Your task to perform on an android device: Clear the cart on target.com. Add "beats solo 3" to the cart on target.com Image 0: 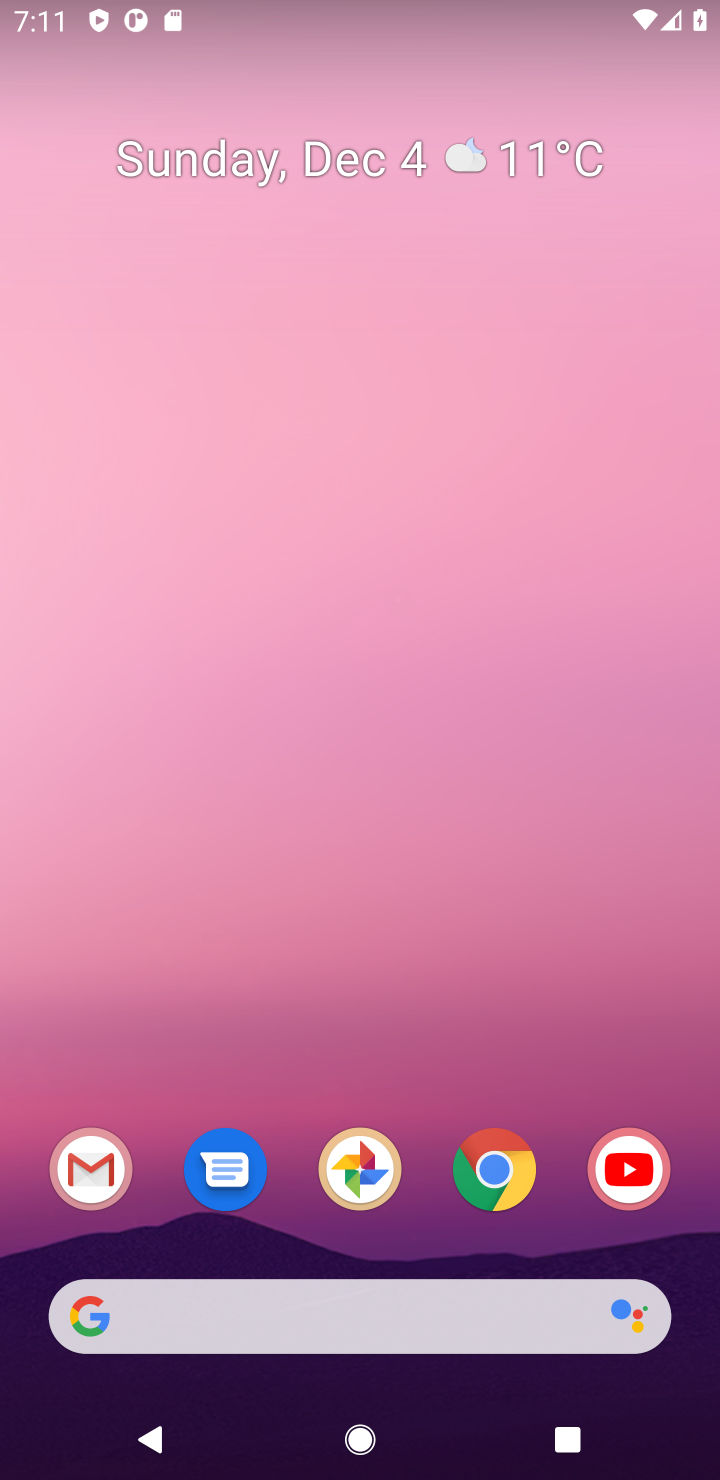
Step 0: drag from (451, 1381) to (8, 876)
Your task to perform on an android device: Clear the cart on target.com. Add "beats solo 3" to the cart on target.com Image 1: 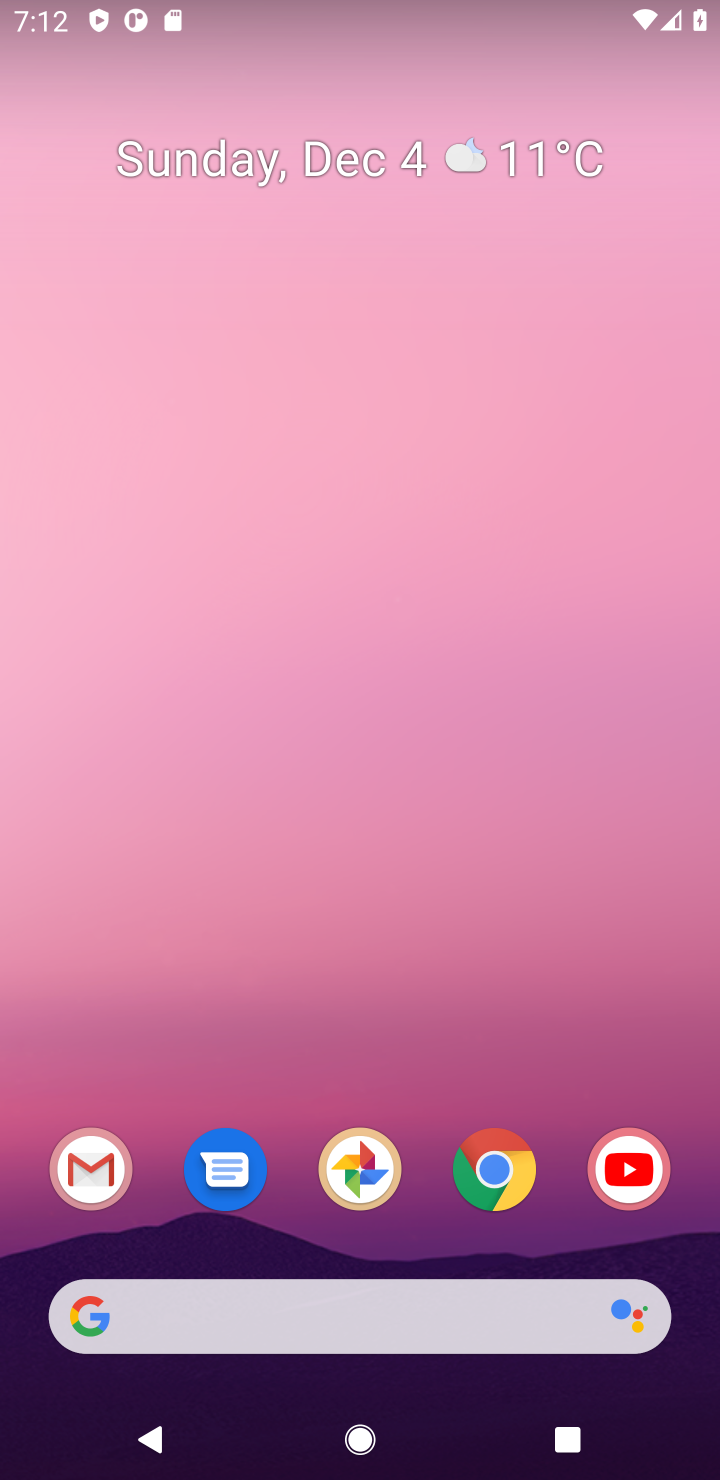
Step 1: drag from (463, 1390) to (478, 2)
Your task to perform on an android device: Clear the cart on target.com. Add "beats solo 3" to the cart on target.com Image 2: 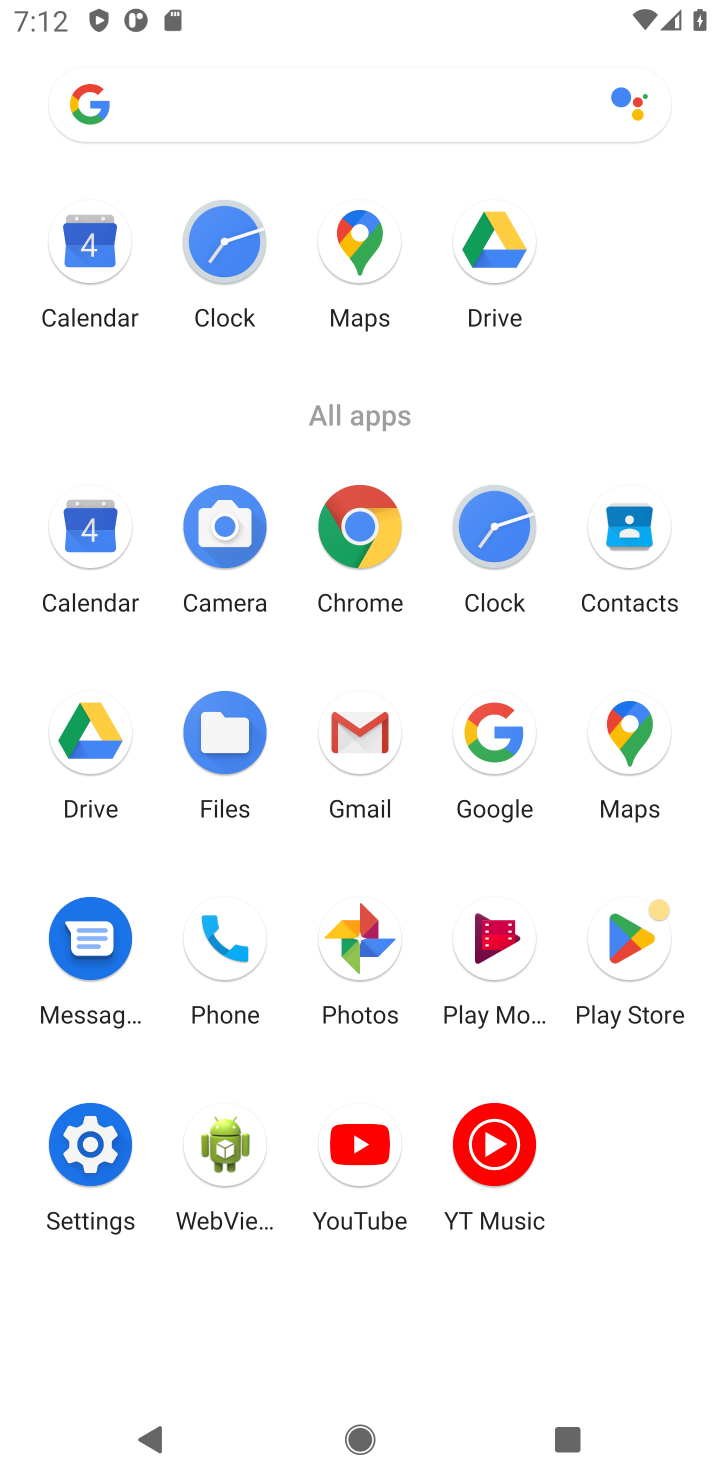
Step 2: click (354, 525)
Your task to perform on an android device: Clear the cart on target.com. Add "beats solo 3" to the cart on target.com Image 3: 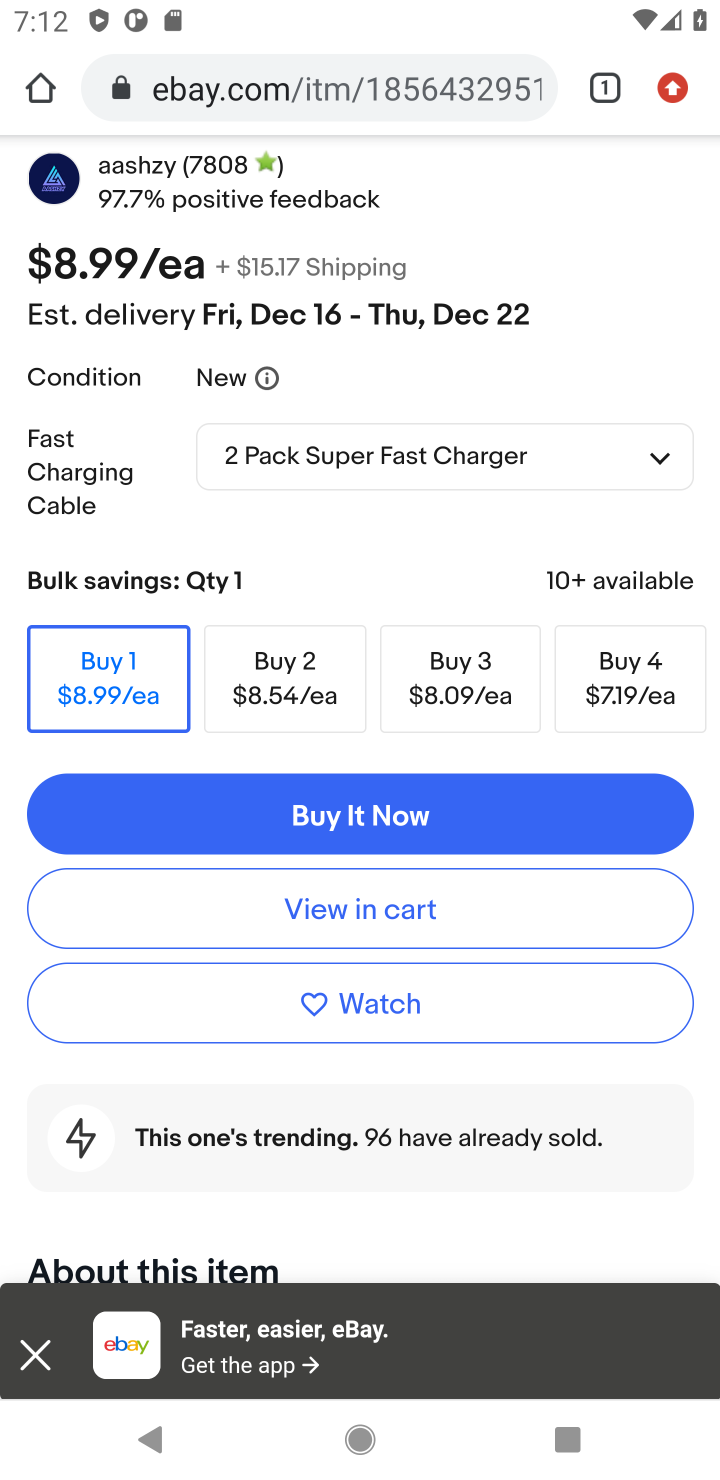
Step 3: click (324, 83)
Your task to perform on an android device: Clear the cart on target.com. Add "beats solo 3" to the cart on target.com Image 4: 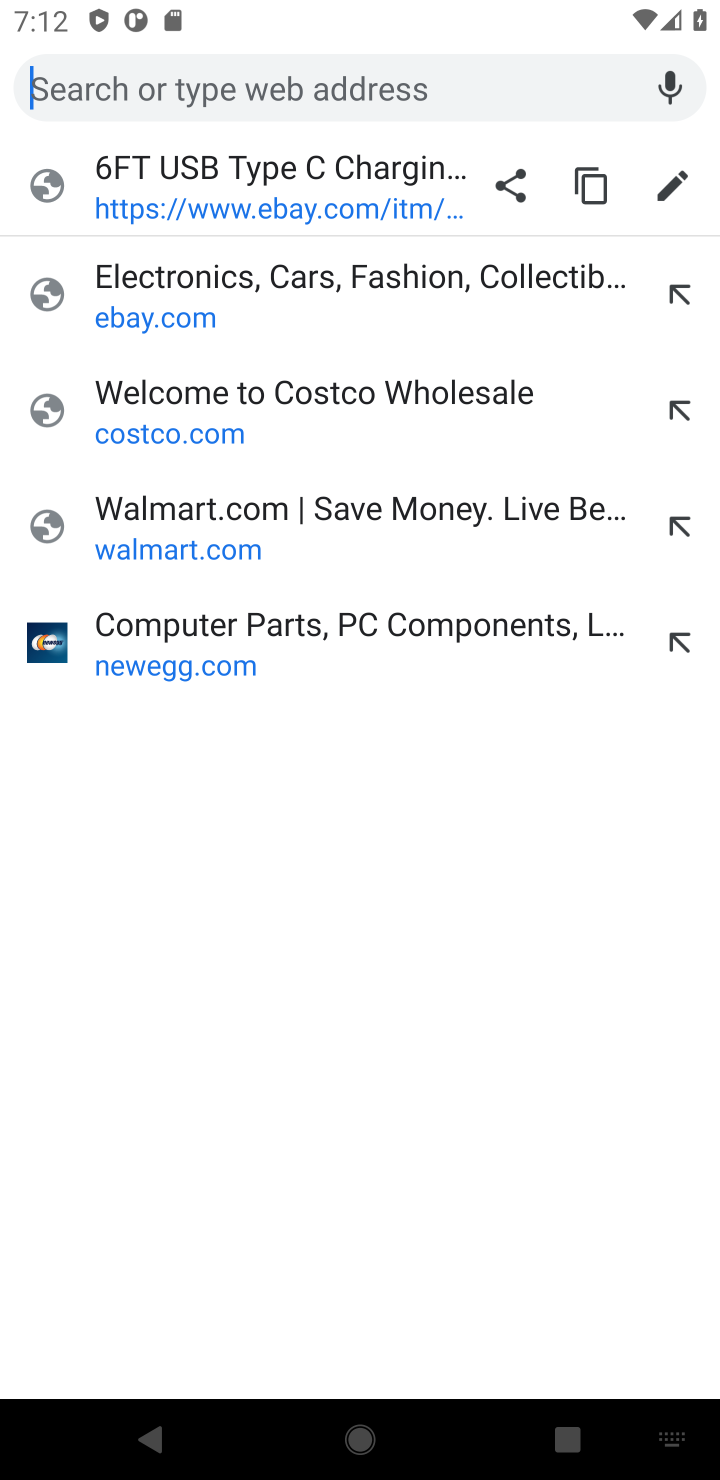
Step 4: type " target.com"
Your task to perform on an android device: Clear the cart on target.com. Add "beats solo 3" to the cart on target.com Image 5: 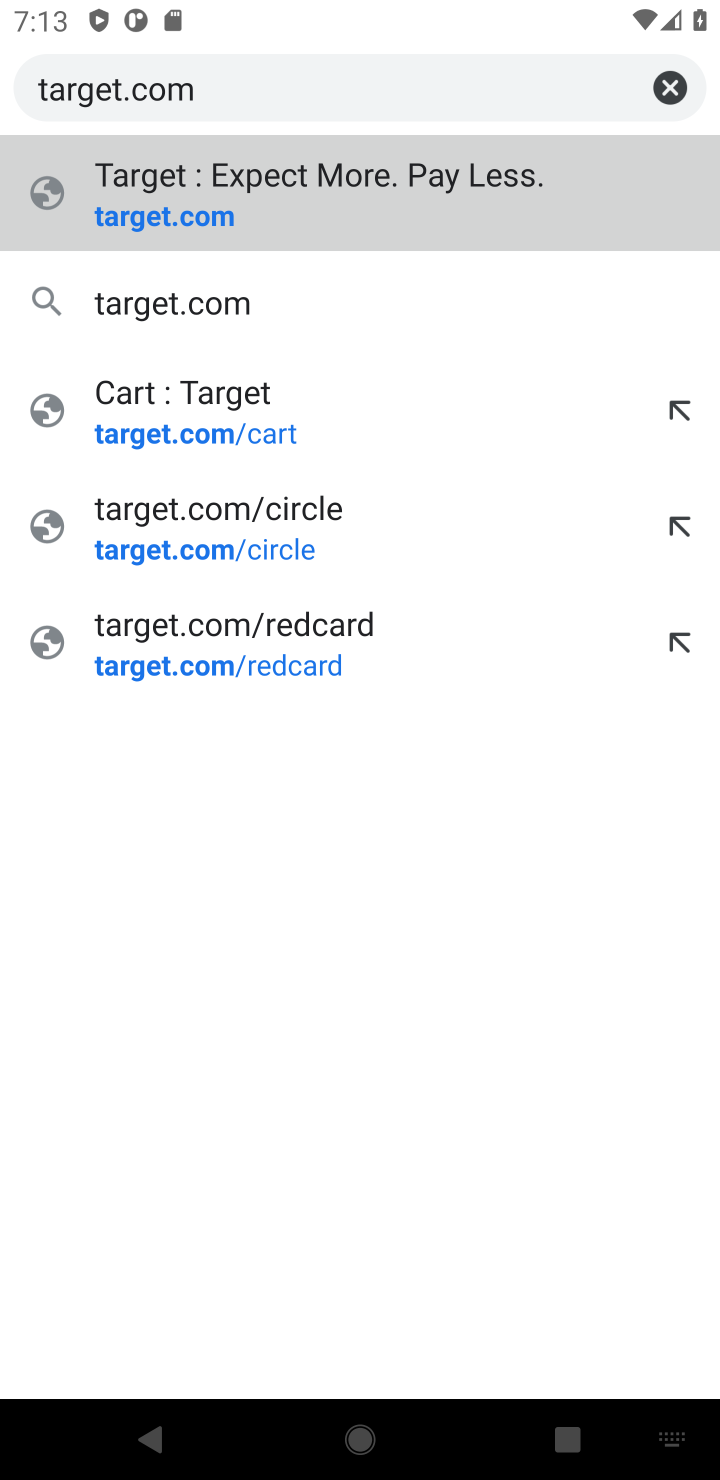
Step 5: type ""
Your task to perform on an android device: Clear the cart on target.com. Add "beats solo 3" to the cart on target.com Image 6: 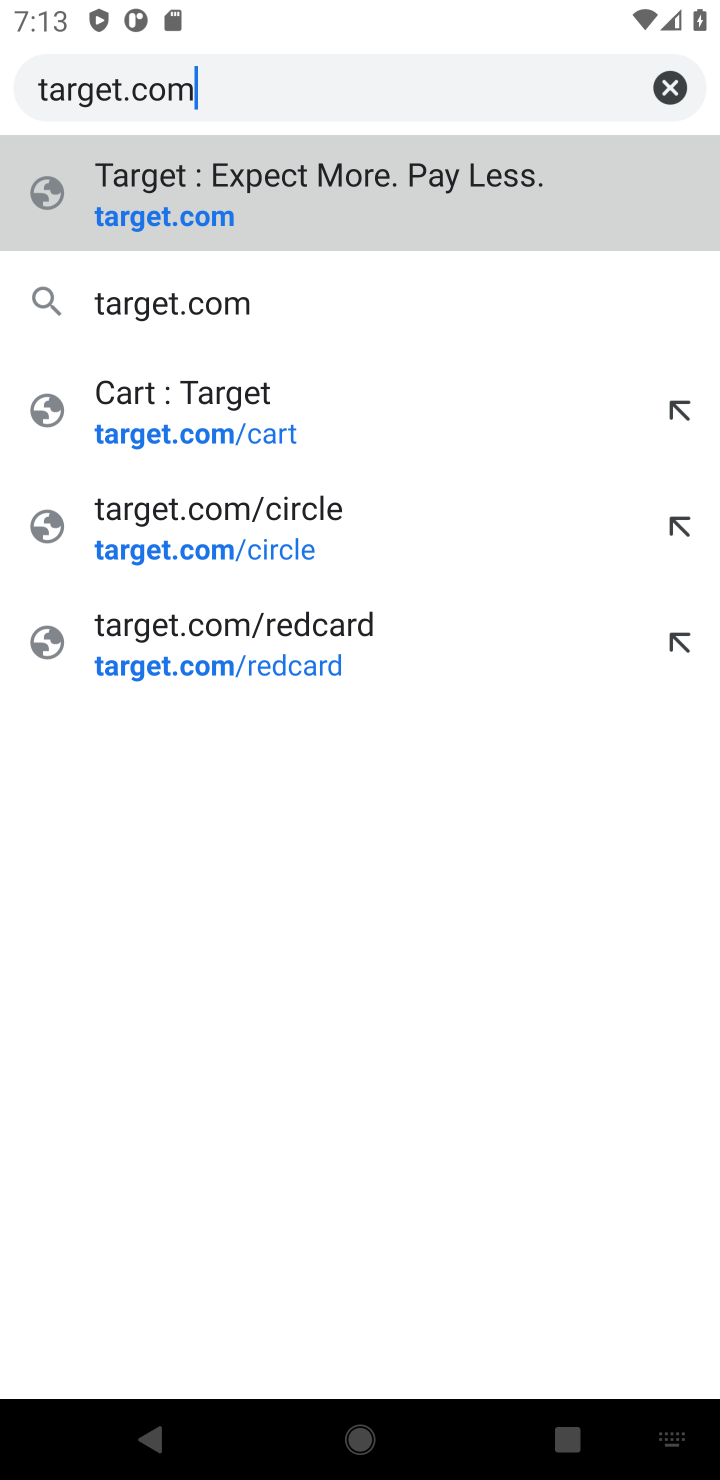
Step 6: click (152, 217)
Your task to perform on an android device: Clear the cart on target.com. Add "beats solo 3" to the cart on target.com Image 7: 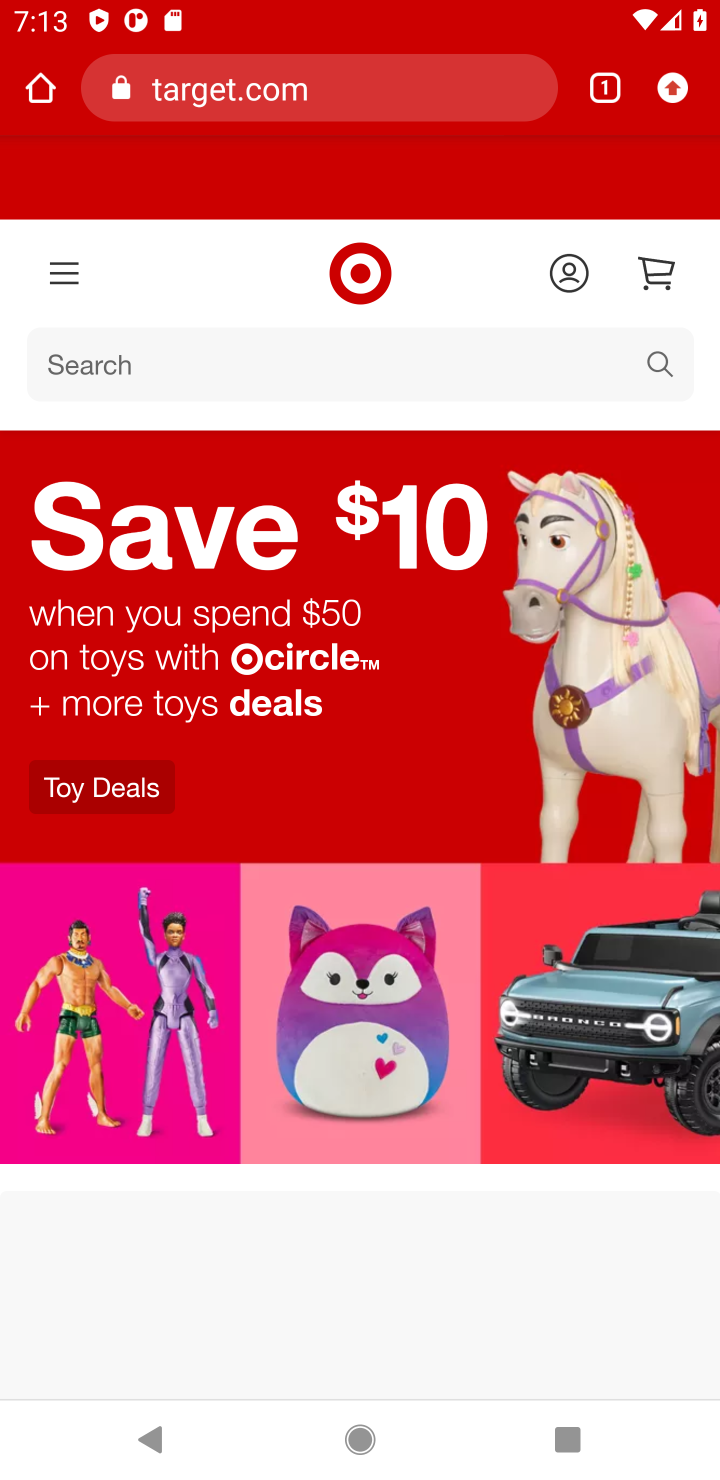
Step 7: click (646, 272)
Your task to perform on an android device: Clear the cart on target.com. Add "beats solo 3" to the cart on target.com Image 8: 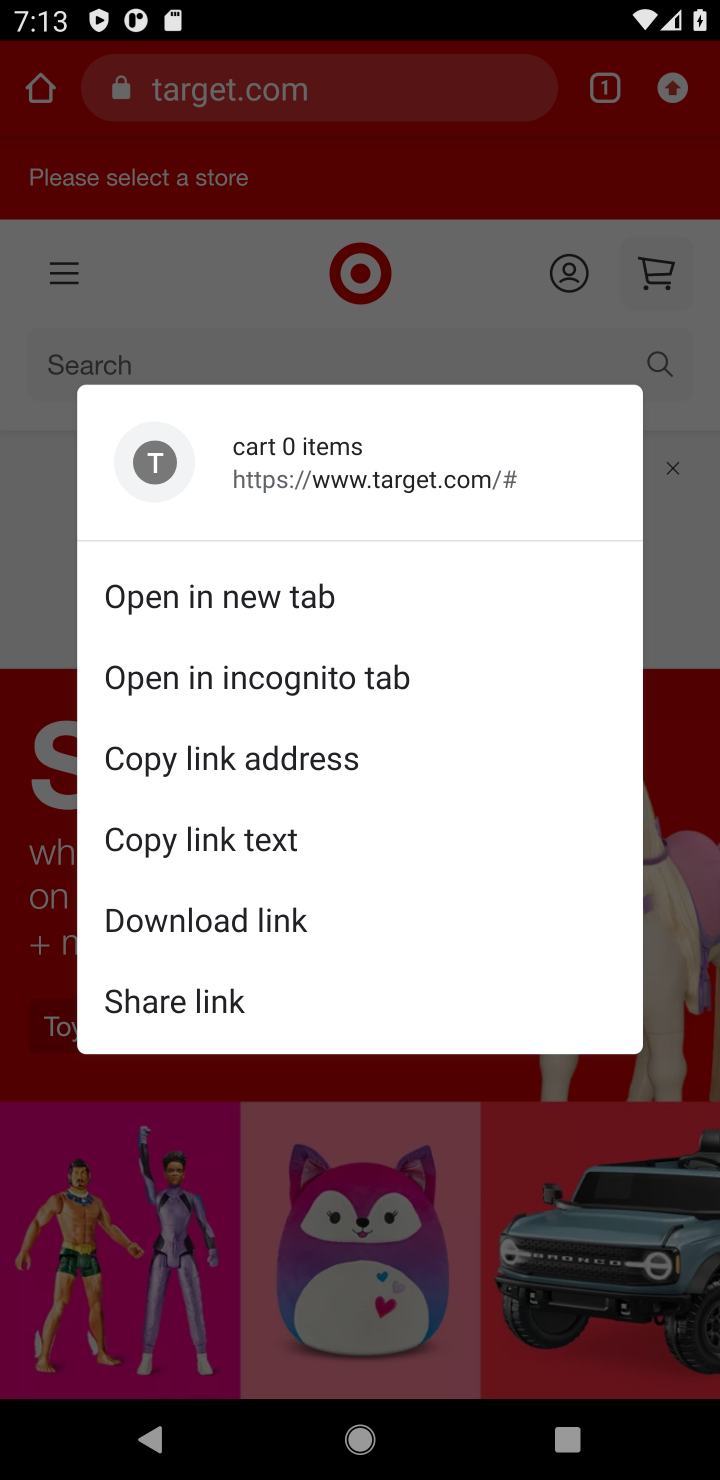
Step 8: click (462, 293)
Your task to perform on an android device: Clear the cart on target.com. Add "beats solo 3" to the cart on target.com Image 9: 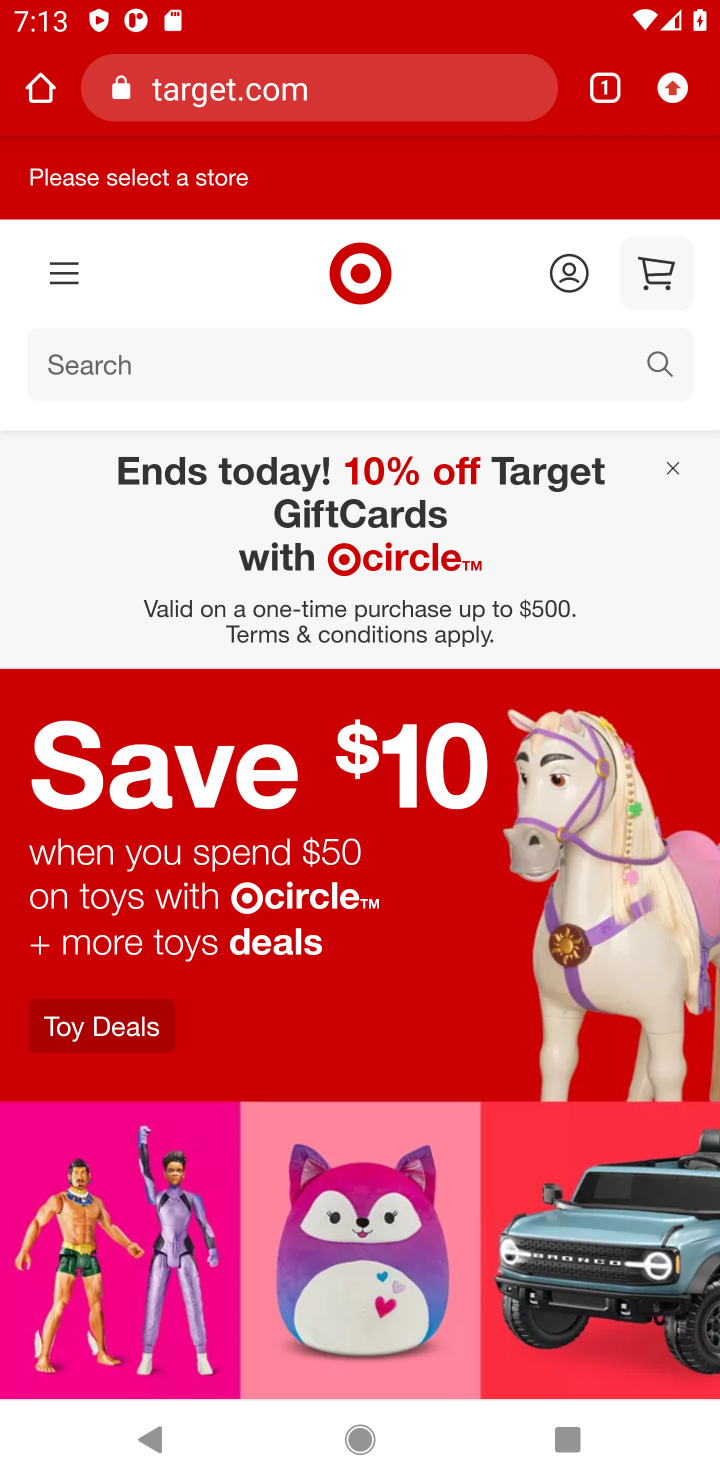
Step 9: click (658, 366)
Your task to perform on an android device: Clear the cart on target.com. Add "beats solo 3" to the cart on target.com Image 10: 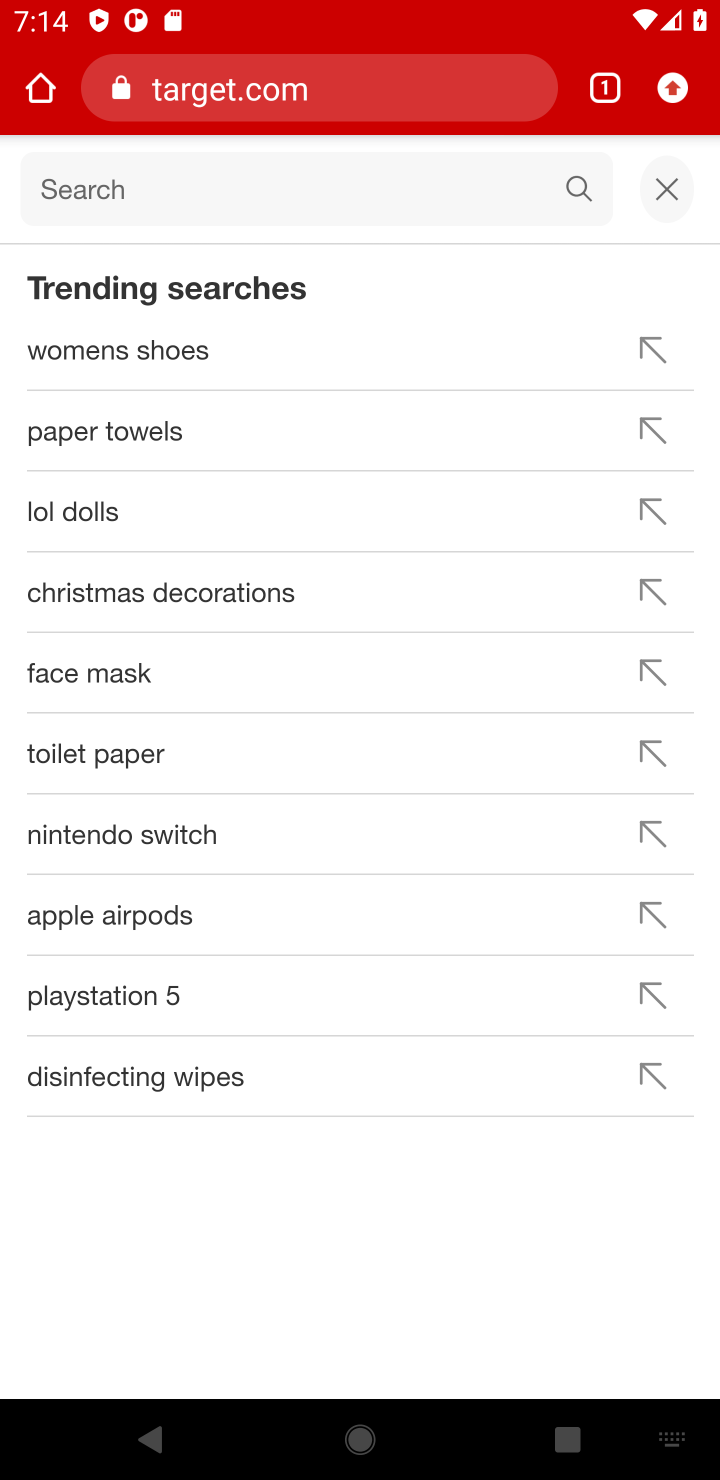
Step 10: type "beats solo 3"
Your task to perform on an android device: Clear the cart on target.com. Add "beats solo 3" to the cart on target.com Image 11: 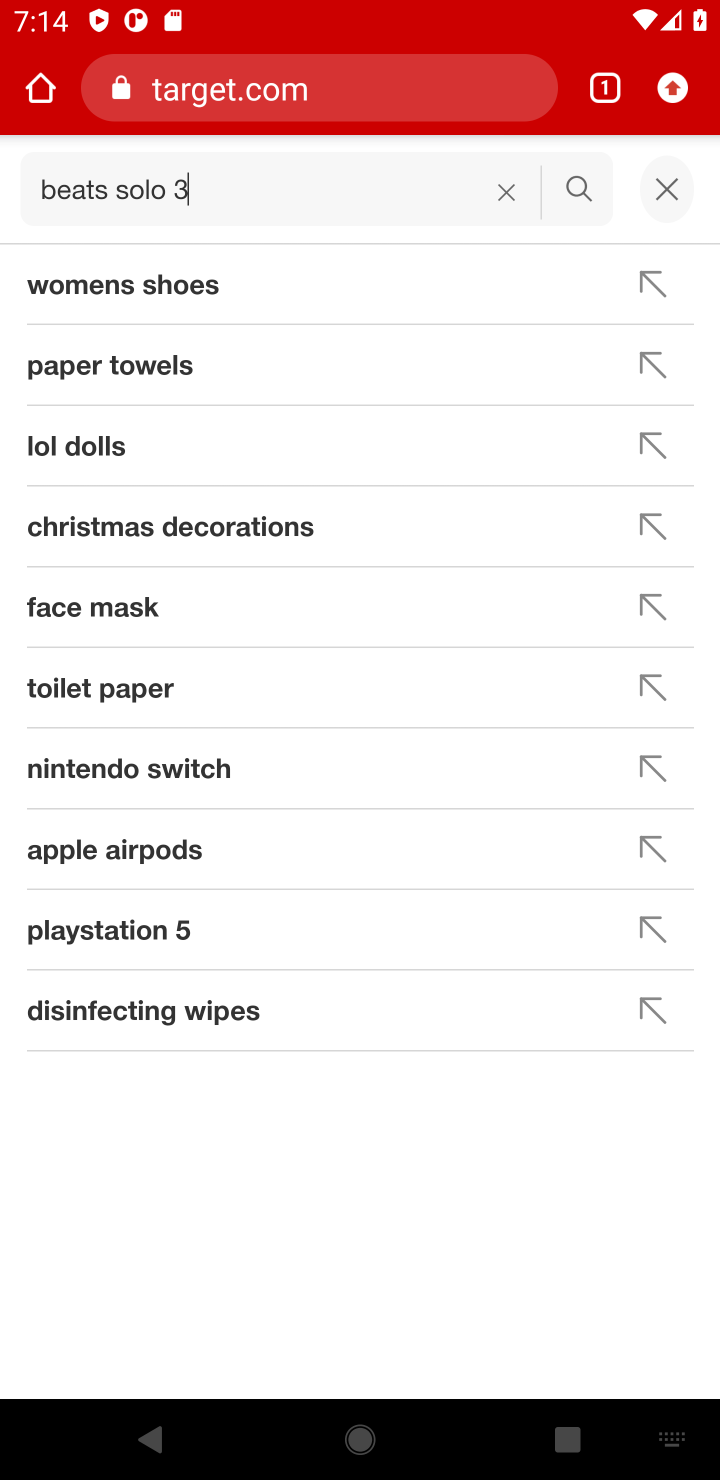
Step 11: type ""
Your task to perform on an android device: Clear the cart on target.com. Add "beats solo 3" to the cart on target.com Image 12: 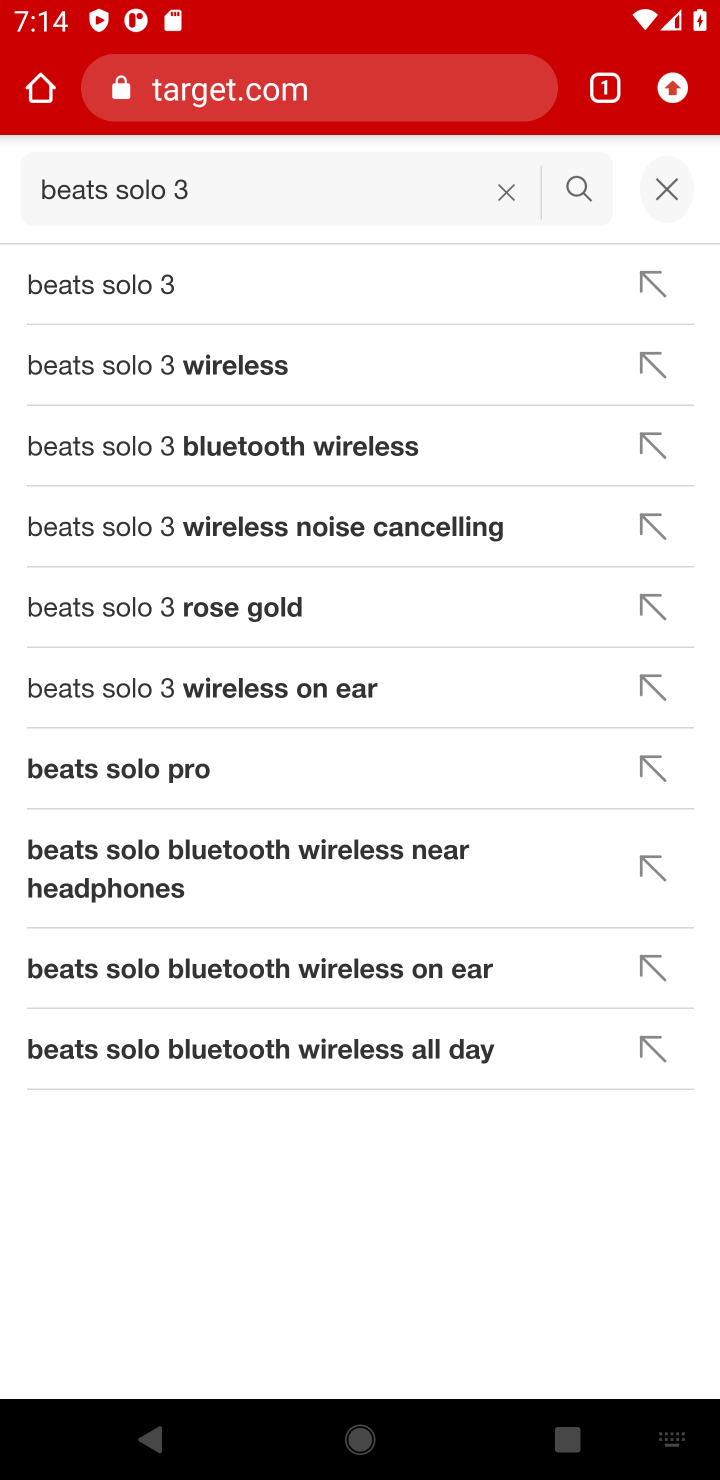
Step 12: click (106, 281)
Your task to perform on an android device: Clear the cart on target.com. Add "beats solo 3" to the cart on target.com Image 13: 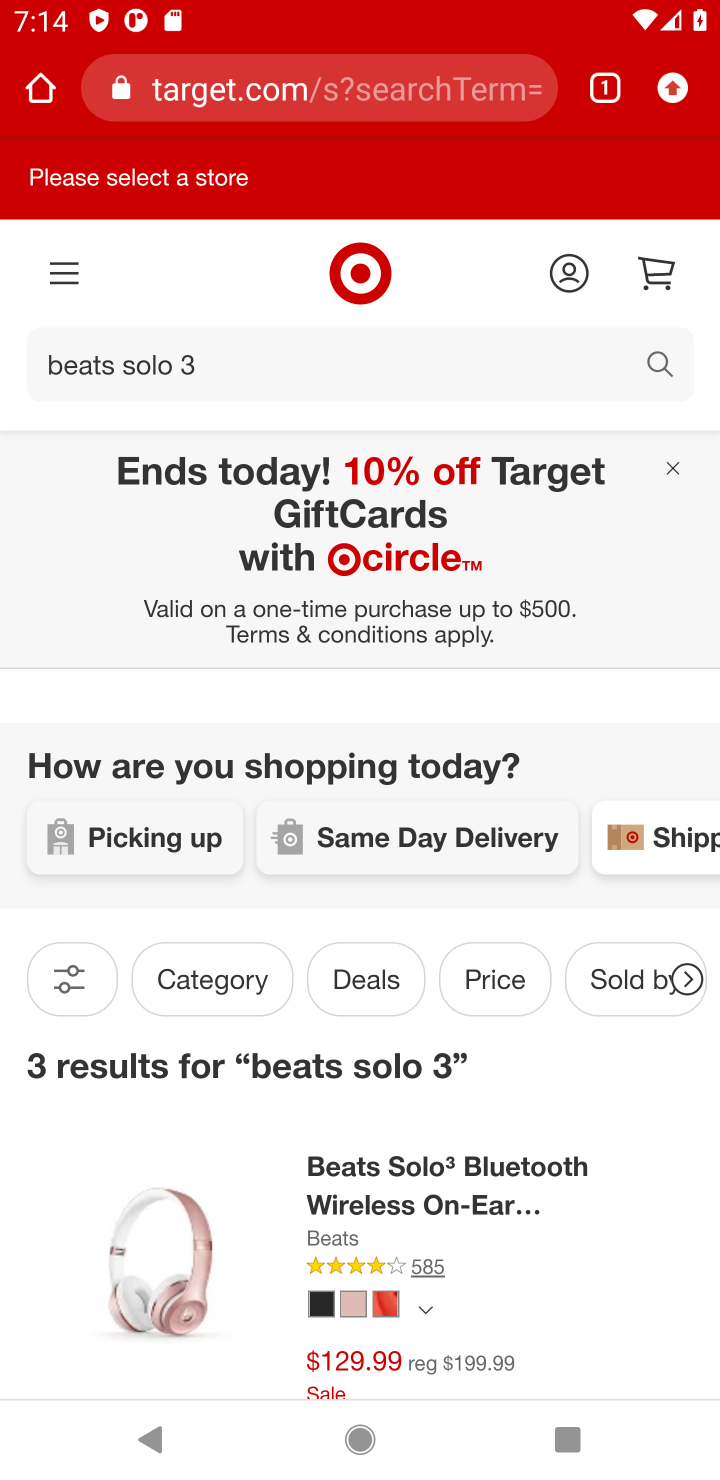
Step 13: drag from (524, 1174) to (505, 447)
Your task to perform on an android device: Clear the cart on target.com. Add "beats solo 3" to the cart on target.com Image 14: 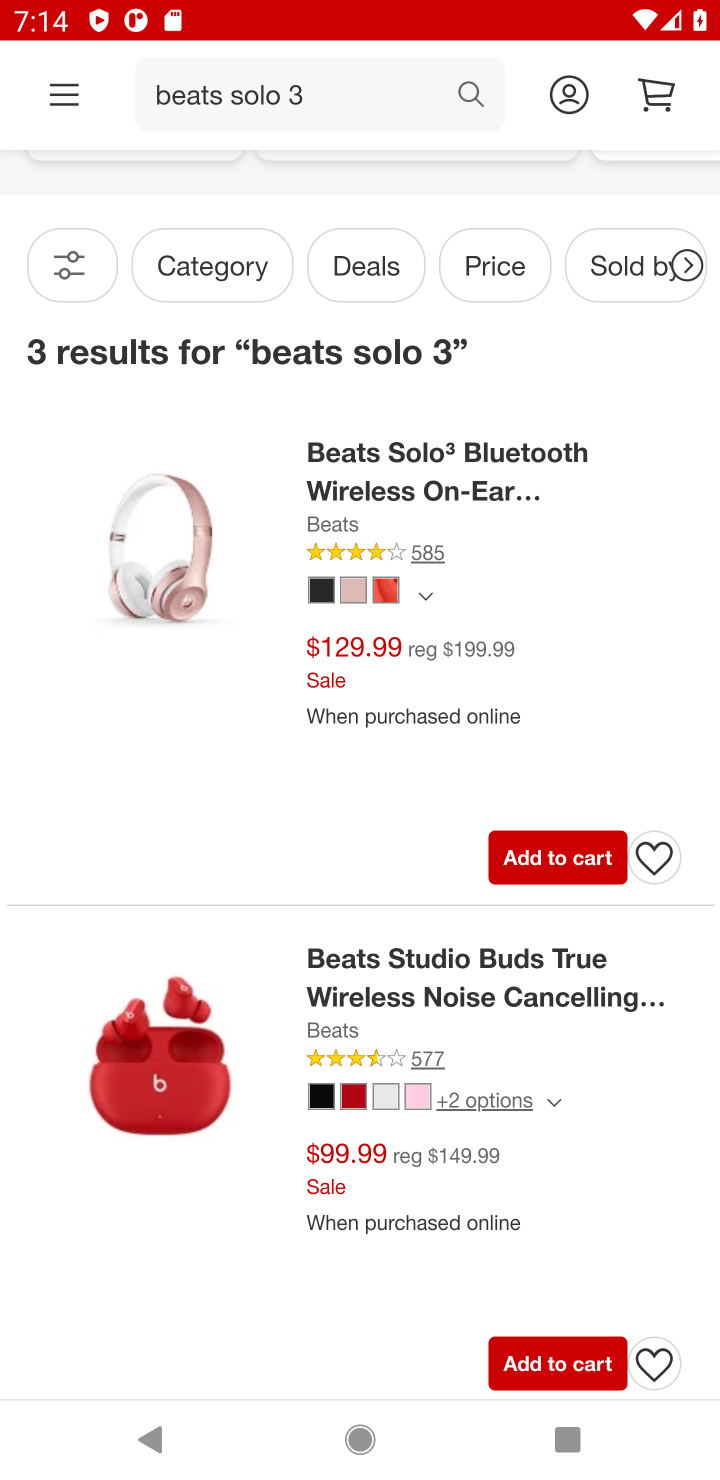
Step 14: click (555, 860)
Your task to perform on an android device: Clear the cart on target.com. Add "beats solo 3" to the cart on target.com Image 15: 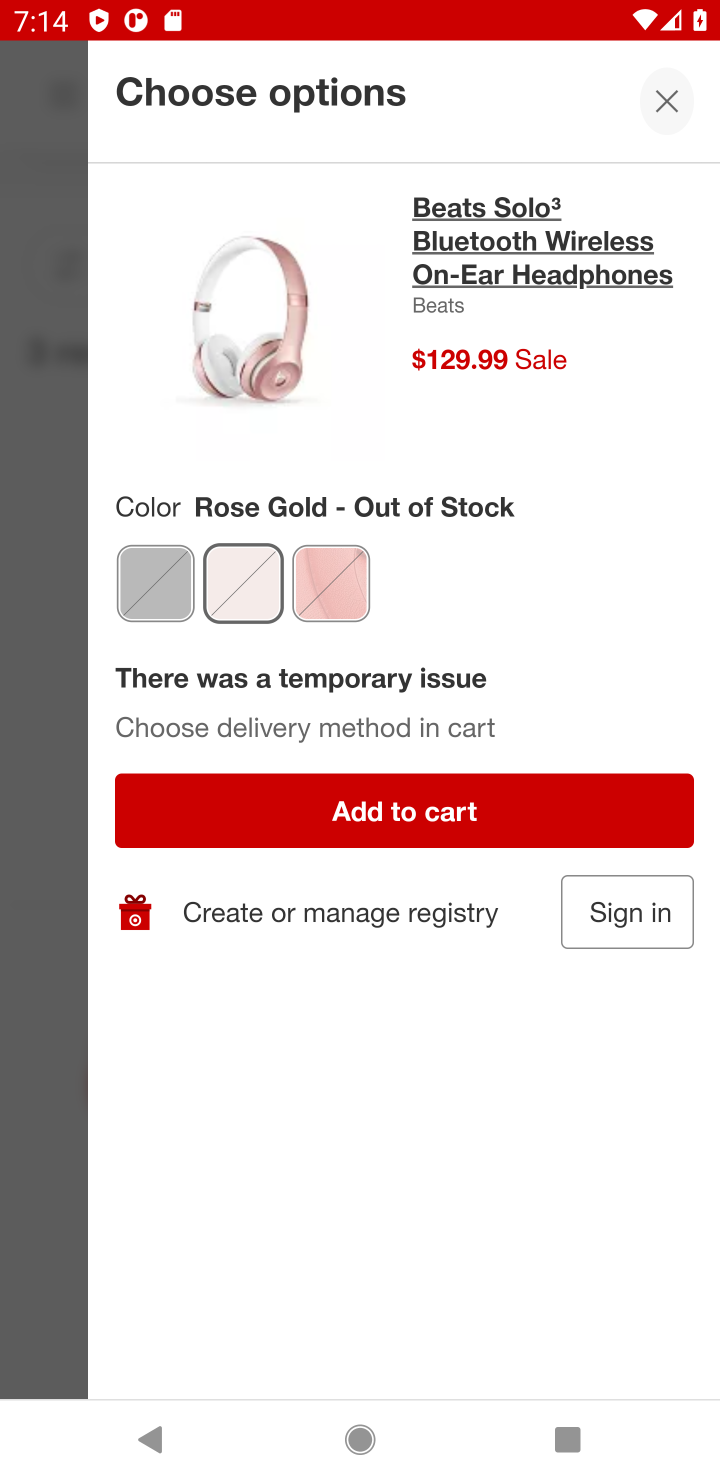
Step 15: click (377, 815)
Your task to perform on an android device: Clear the cart on target.com. Add "beats solo 3" to the cart on target.com Image 16: 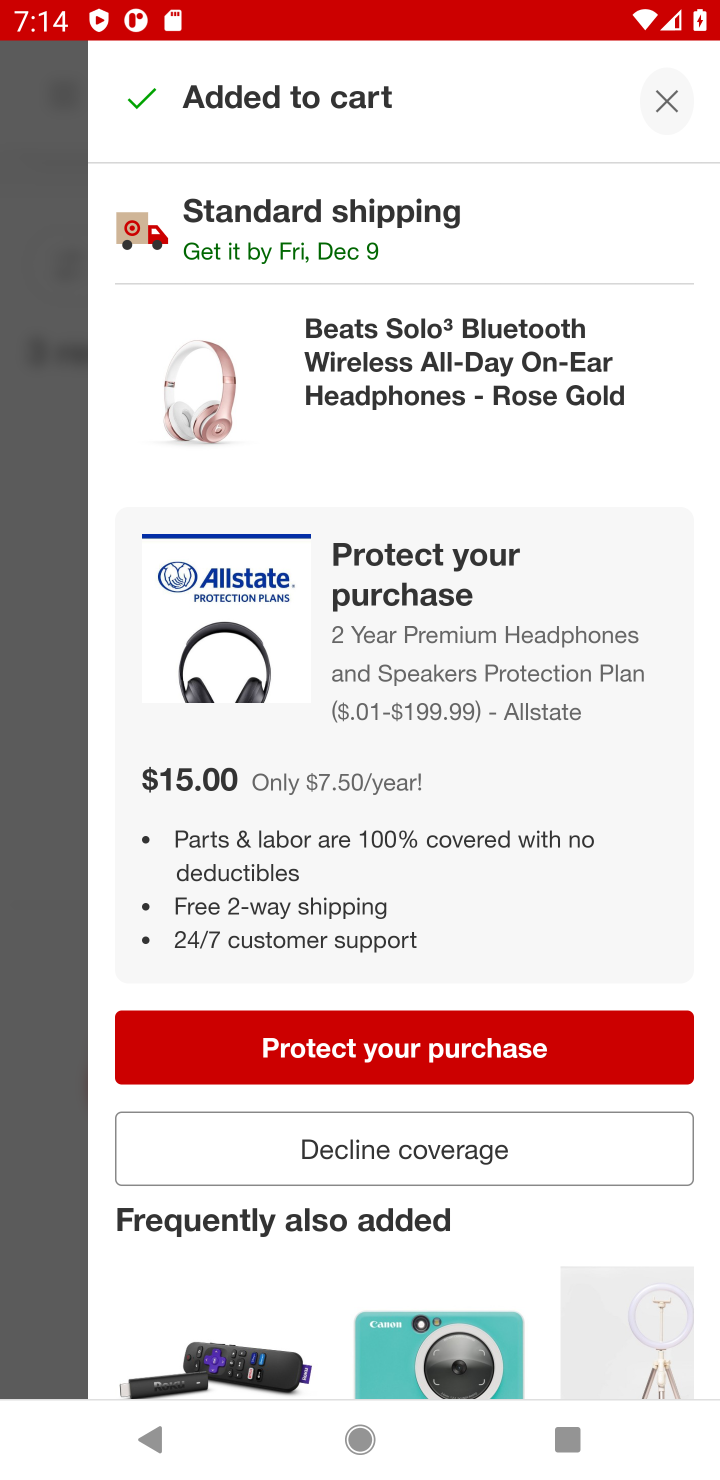
Step 16: task complete